Your task to perform on an android device: Go to display settings Image 0: 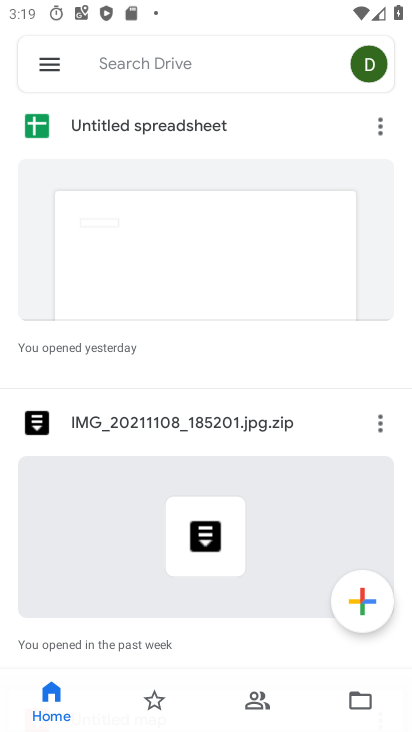
Step 0: press home button
Your task to perform on an android device: Go to display settings Image 1: 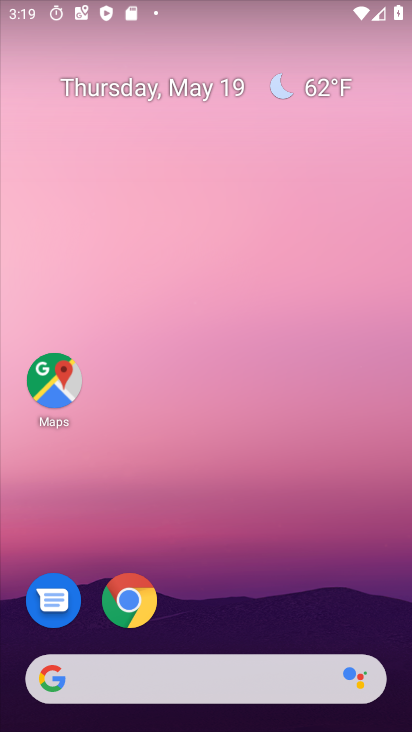
Step 1: drag from (30, 627) to (222, 231)
Your task to perform on an android device: Go to display settings Image 2: 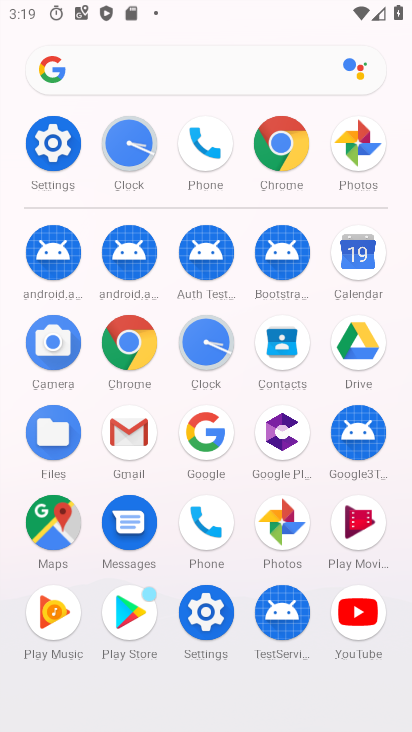
Step 2: click (59, 152)
Your task to perform on an android device: Go to display settings Image 3: 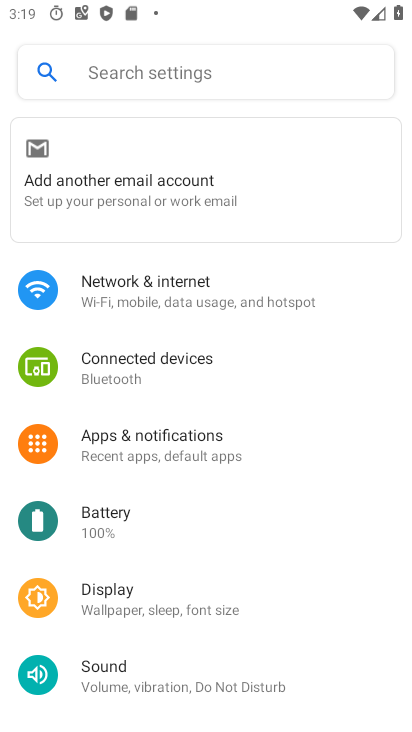
Step 3: drag from (3, 718) to (208, 294)
Your task to perform on an android device: Go to display settings Image 4: 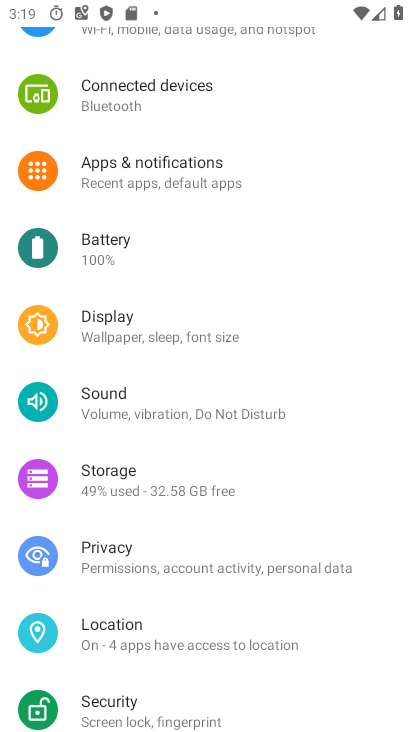
Step 4: click (101, 316)
Your task to perform on an android device: Go to display settings Image 5: 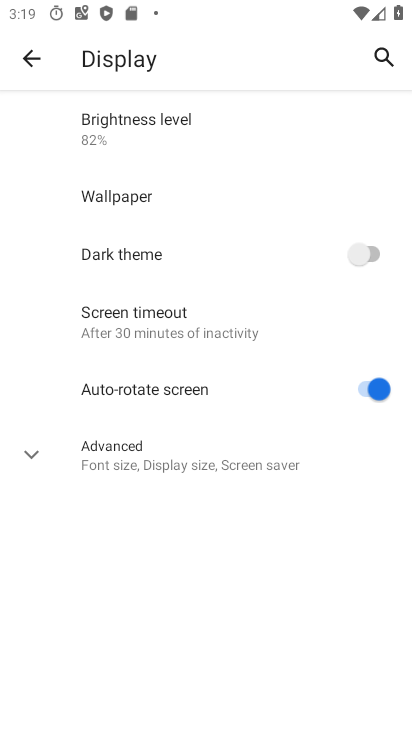
Step 5: task complete